Your task to perform on an android device: search for starred emails in the gmail app Image 0: 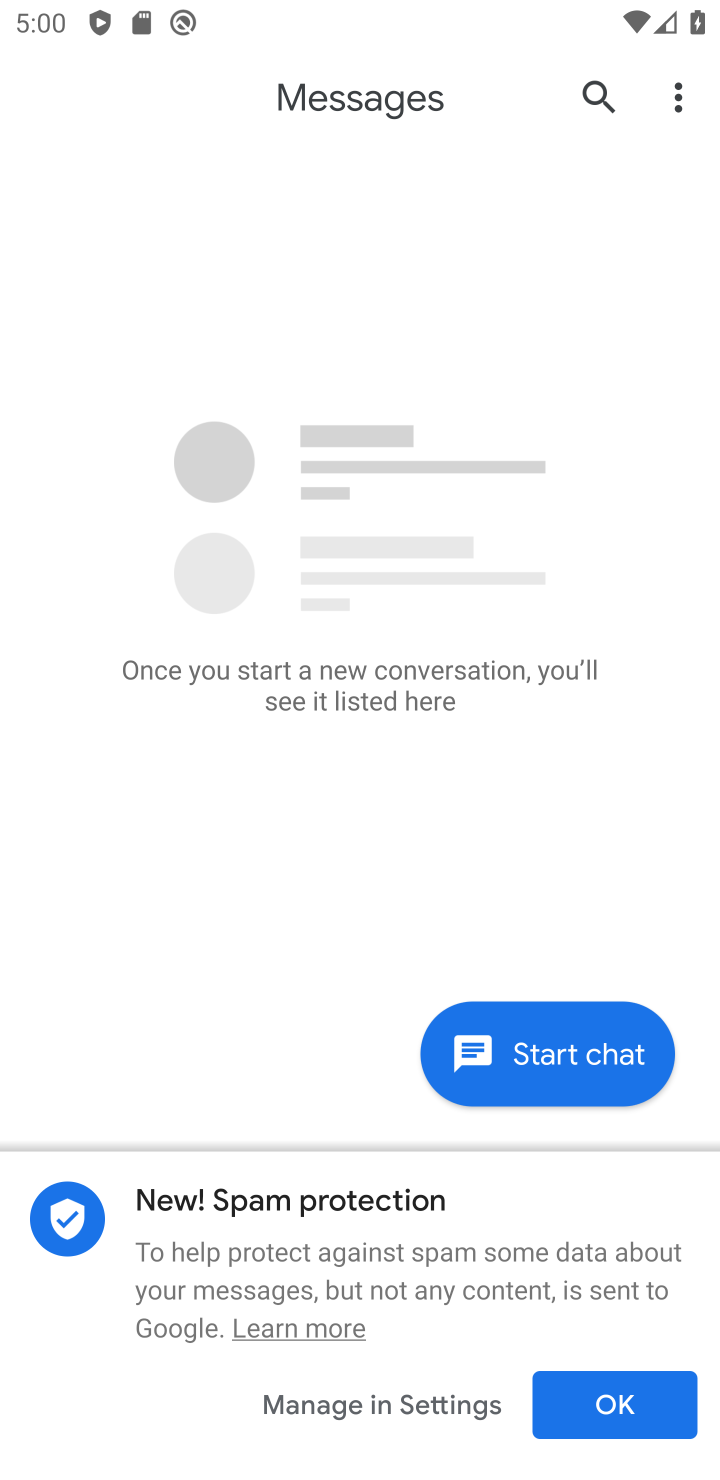
Step 0: press home button
Your task to perform on an android device: search for starred emails in the gmail app Image 1: 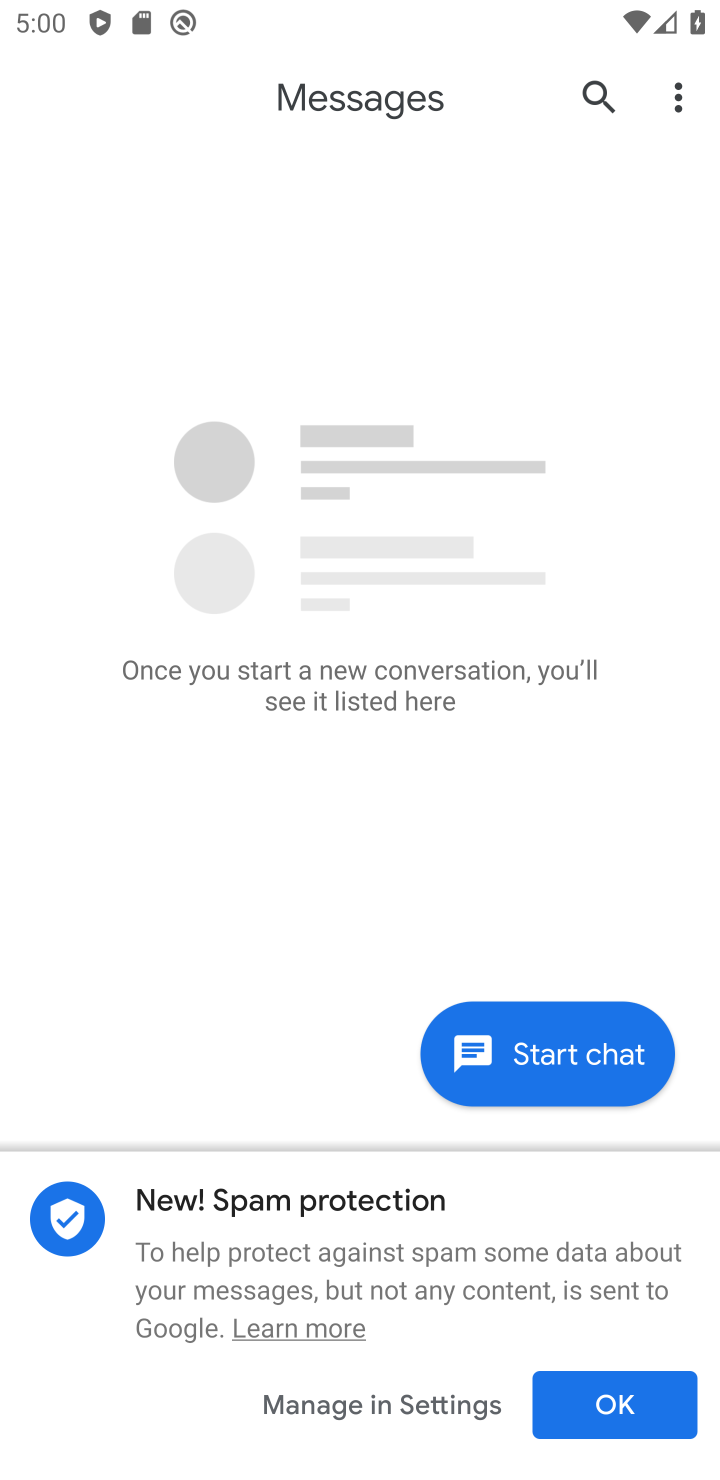
Step 1: press home button
Your task to perform on an android device: search for starred emails in the gmail app Image 2: 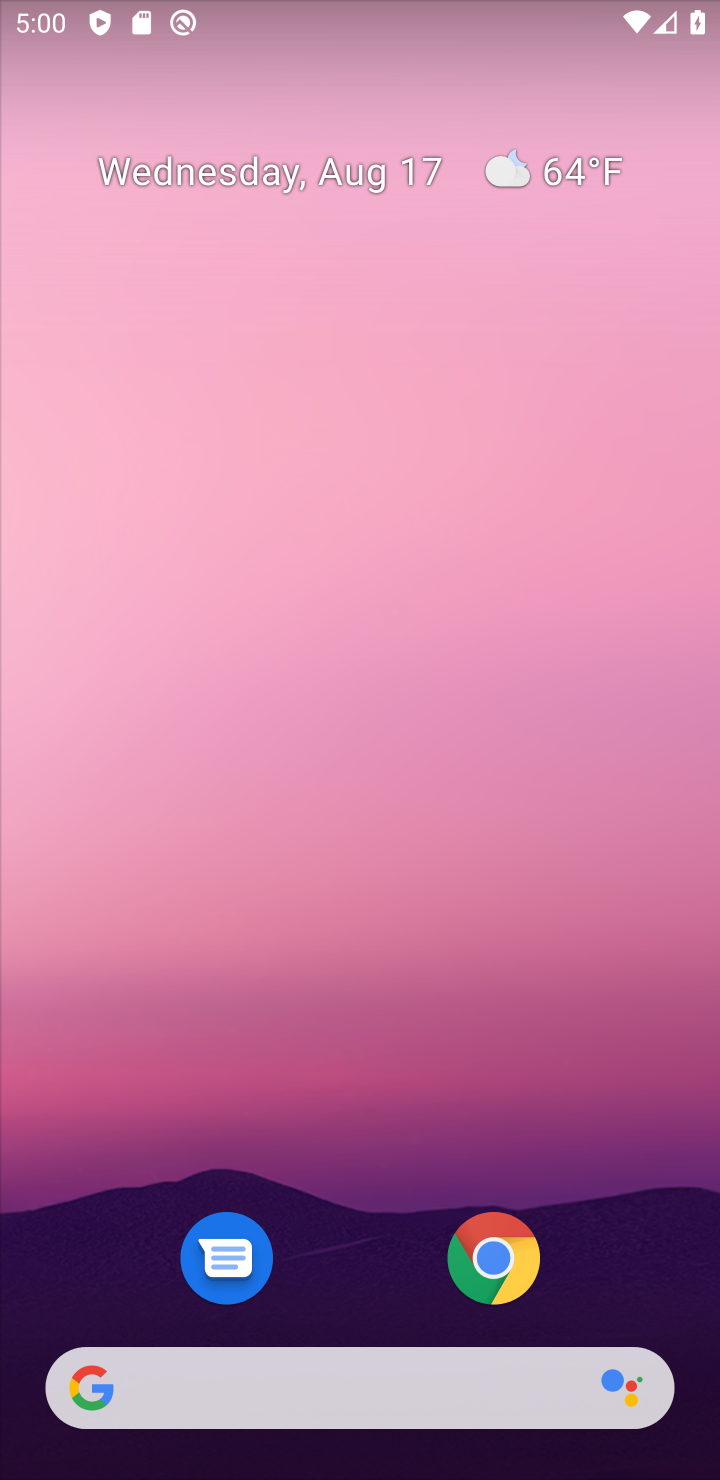
Step 2: press home button
Your task to perform on an android device: search for starred emails in the gmail app Image 3: 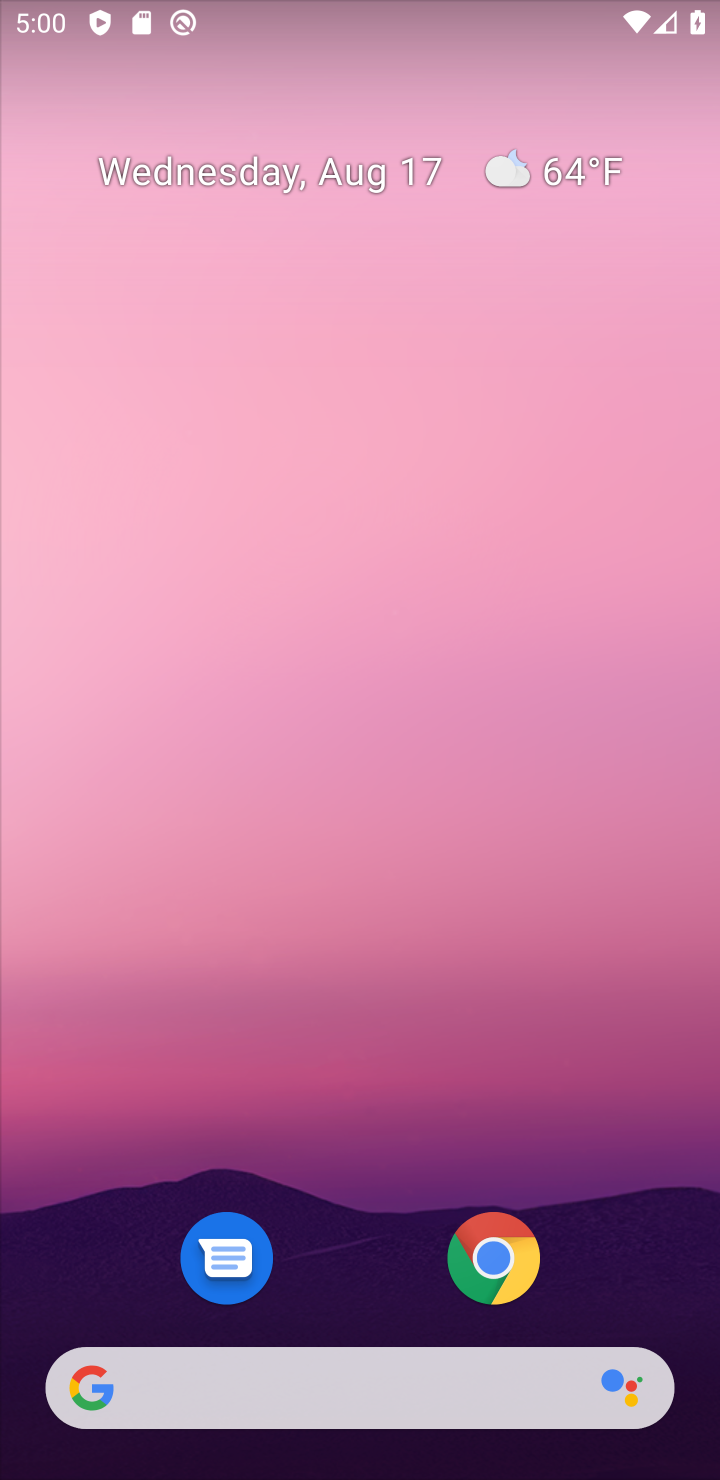
Step 3: drag from (366, 1166) to (434, 109)
Your task to perform on an android device: search for starred emails in the gmail app Image 4: 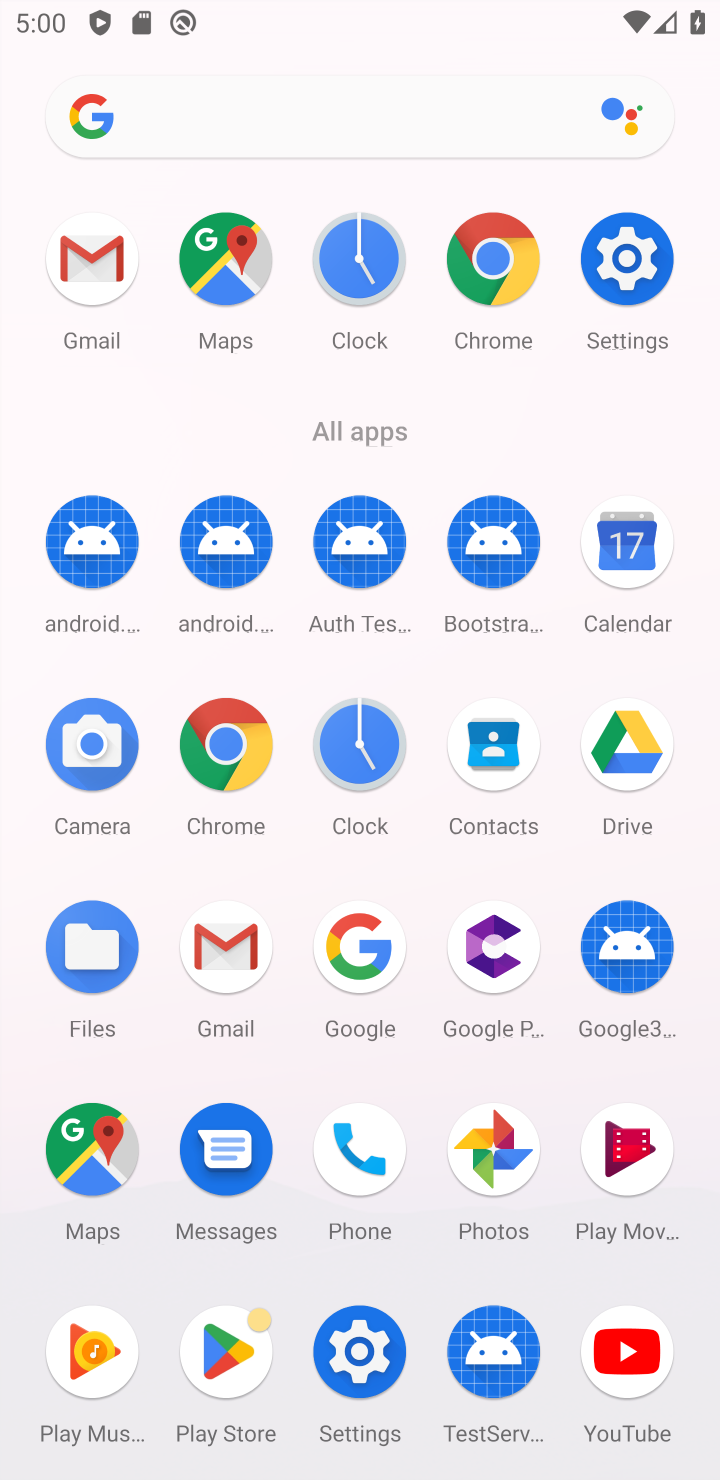
Step 4: click (231, 959)
Your task to perform on an android device: search for starred emails in the gmail app Image 5: 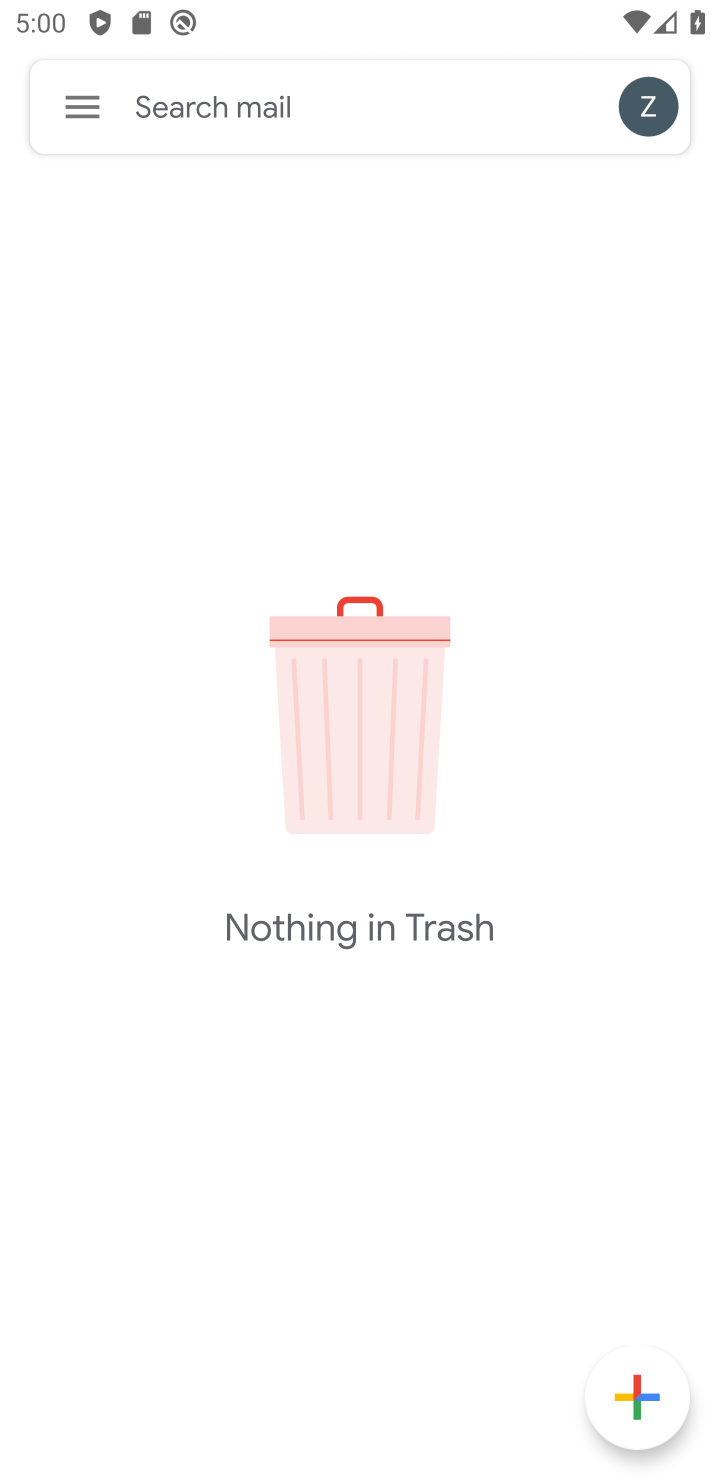
Step 5: click (74, 105)
Your task to perform on an android device: search for starred emails in the gmail app Image 6: 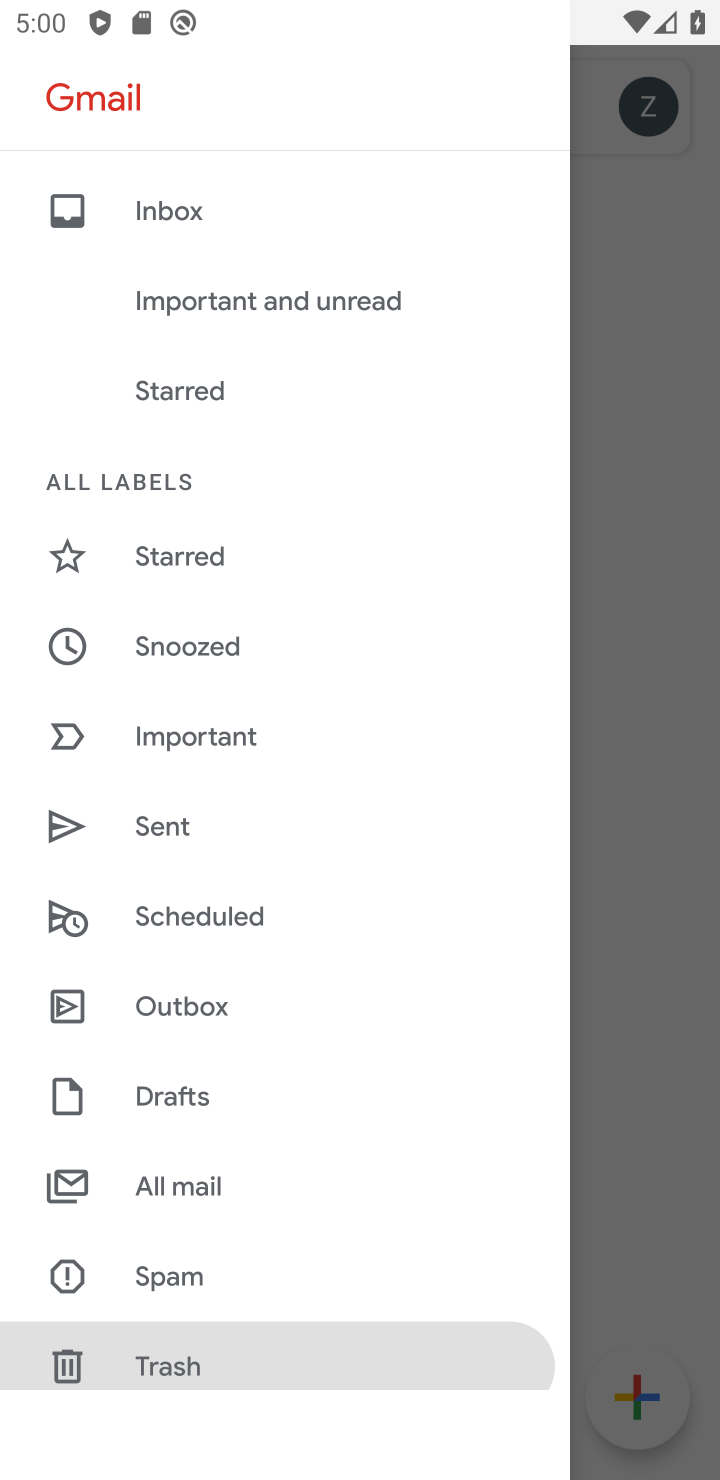
Step 6: click (191, 578)
Your task to perform on an android device: search for starred emails in the gmail app Image 7: 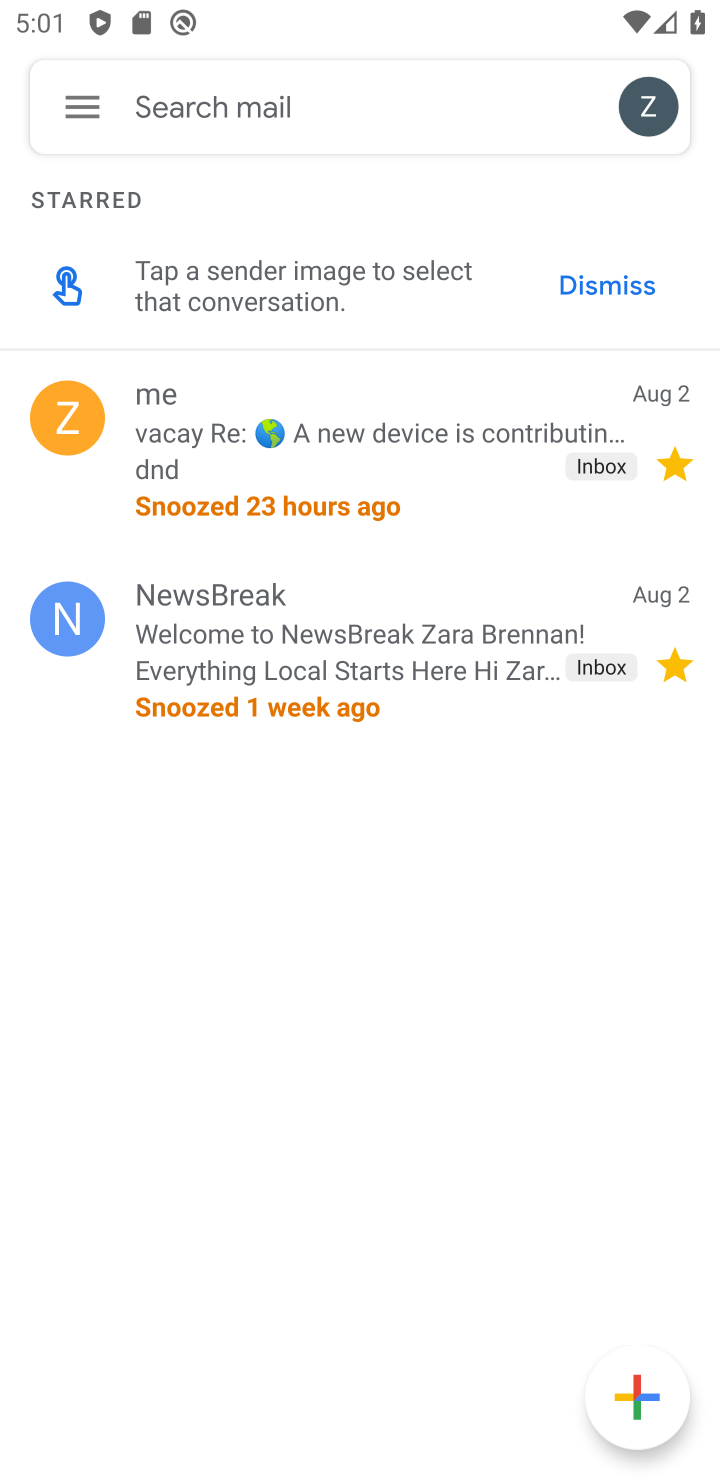
Step 7: task complete